Your task to perform on an android device: turn off priority inbox in the gmail app Image 0: 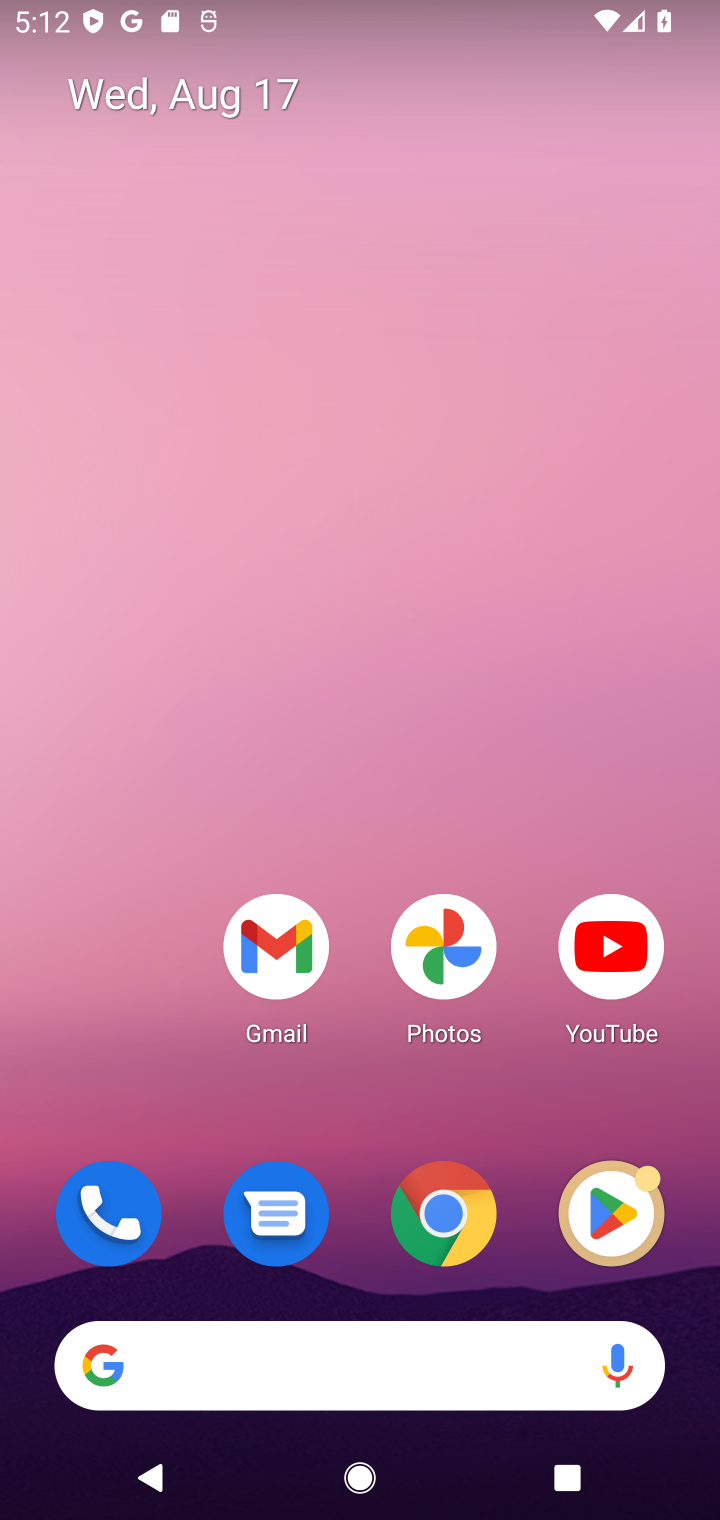
Step 0: click (271, 928)
Your task to perform on an android device: turn off priority inbox in the gmail app Image 1: 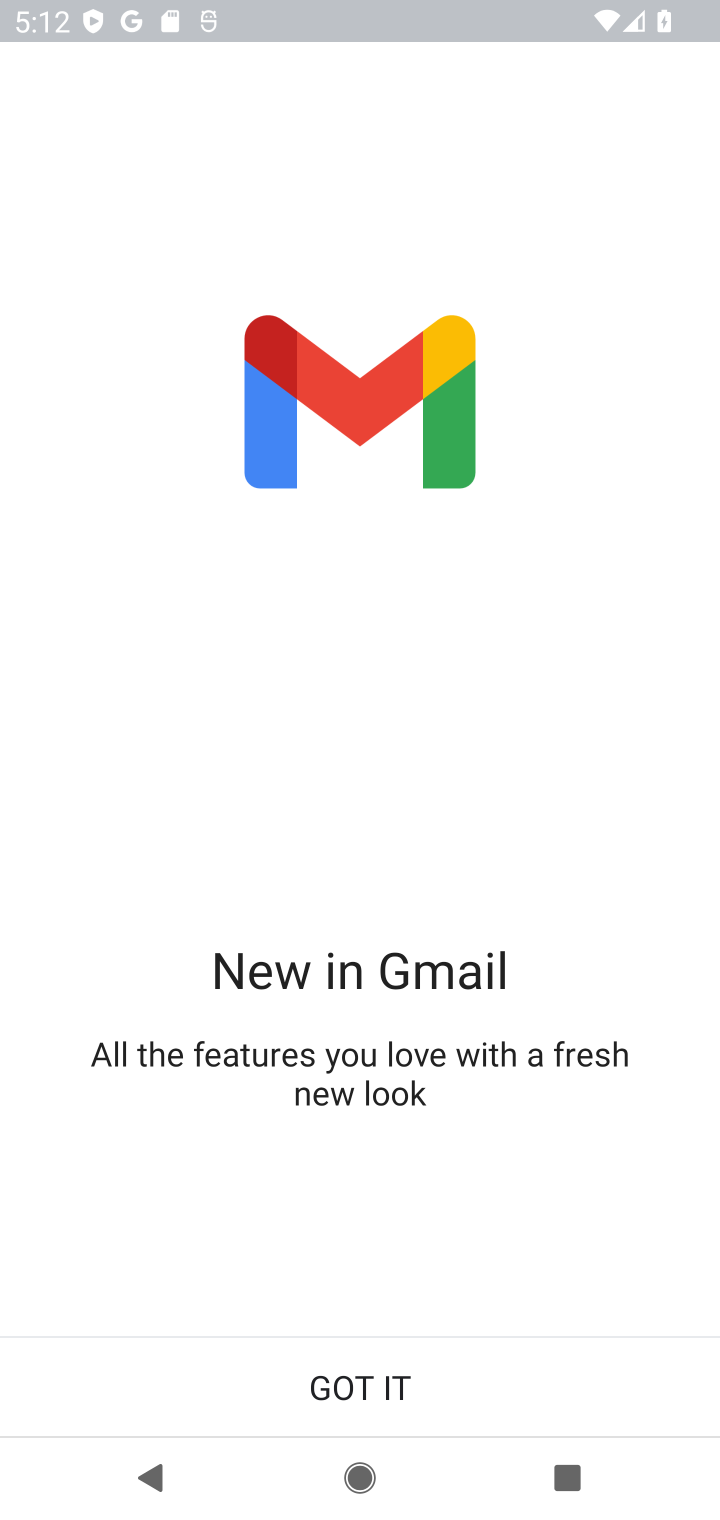
Step 1: click (403, 1389)
Your task to perform on an android device: turn off priority inbox in the gmail app Image 2: 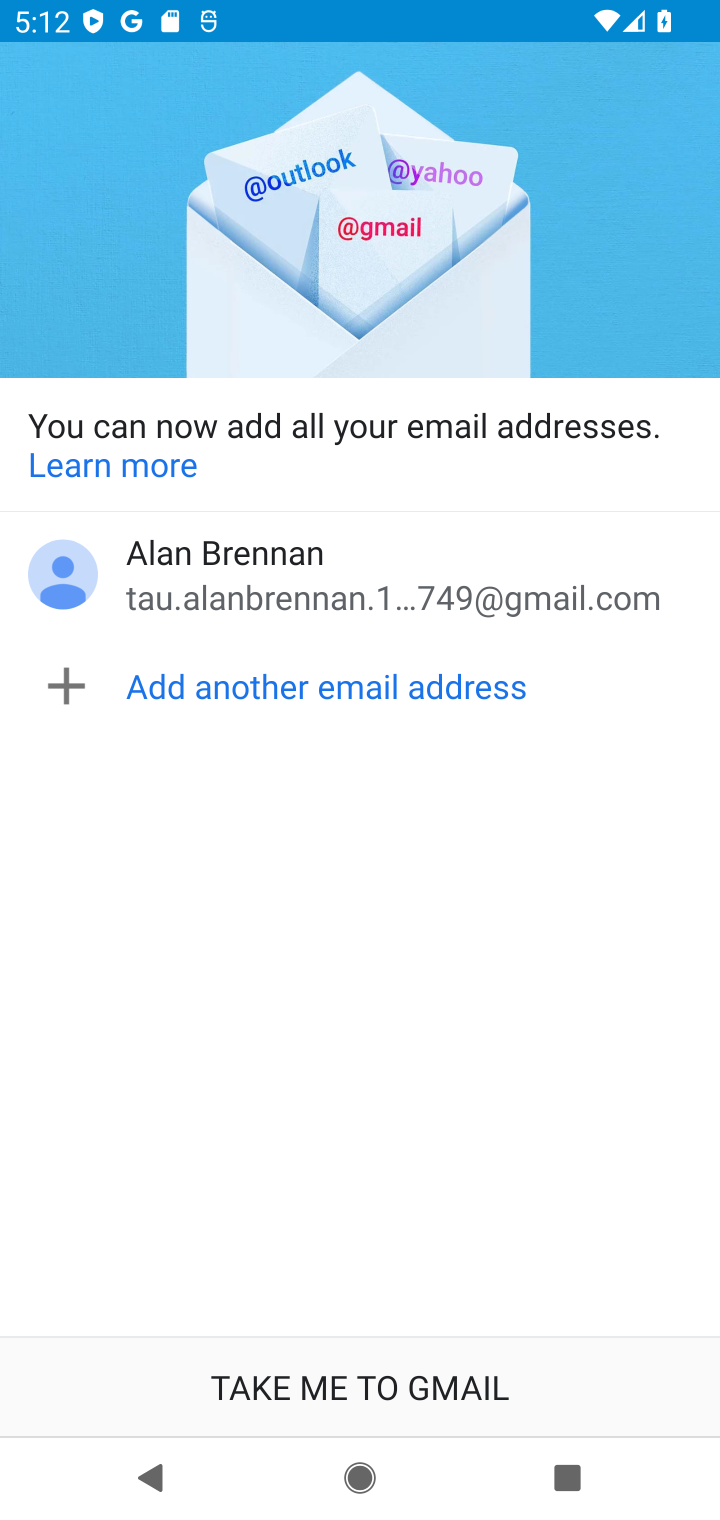
Step 2: click (403, 1389)
Your task to perform on an android device: turn off priority inbox in the gmail app Image 3: 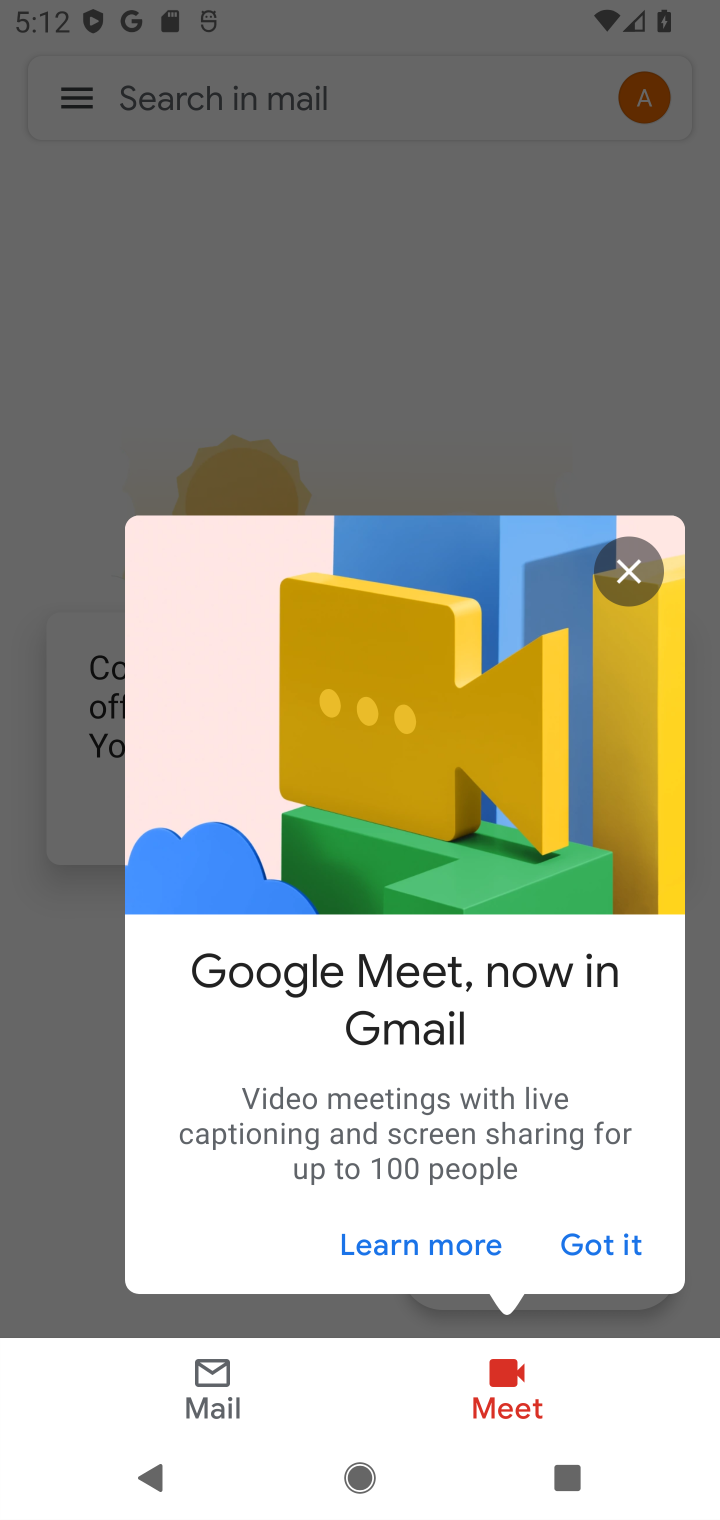
Step 3: click (630, 570)
Your task to perform on an android device: turn off priority inbox in the gmail app Image 4: 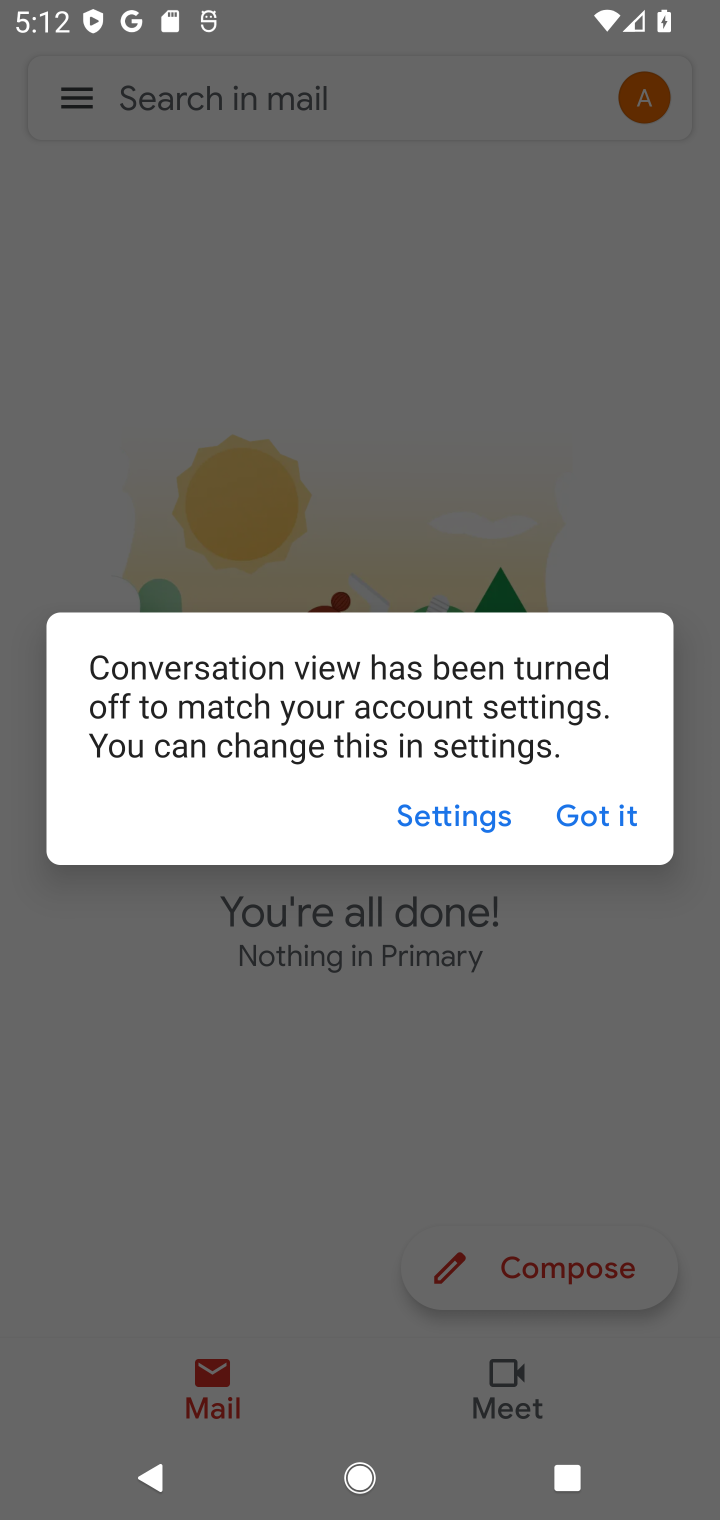
Step 4: click (599, 806)
Your task to perform on an android device: turn off priority inbox in the gmail app Image 5: 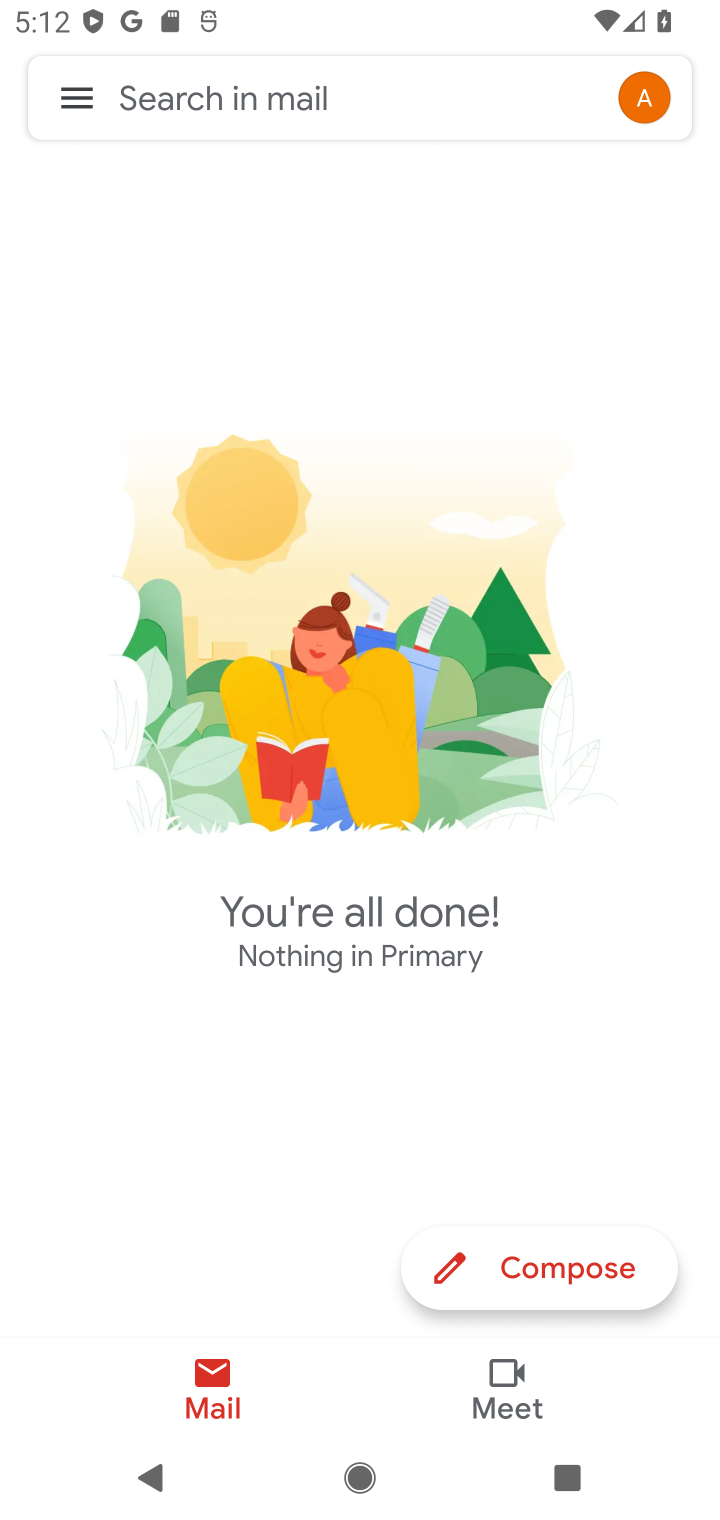
Step 5: click (76, 116)
Your task to perform on an android device: turn off priority inbox in the gmail app Image 6: 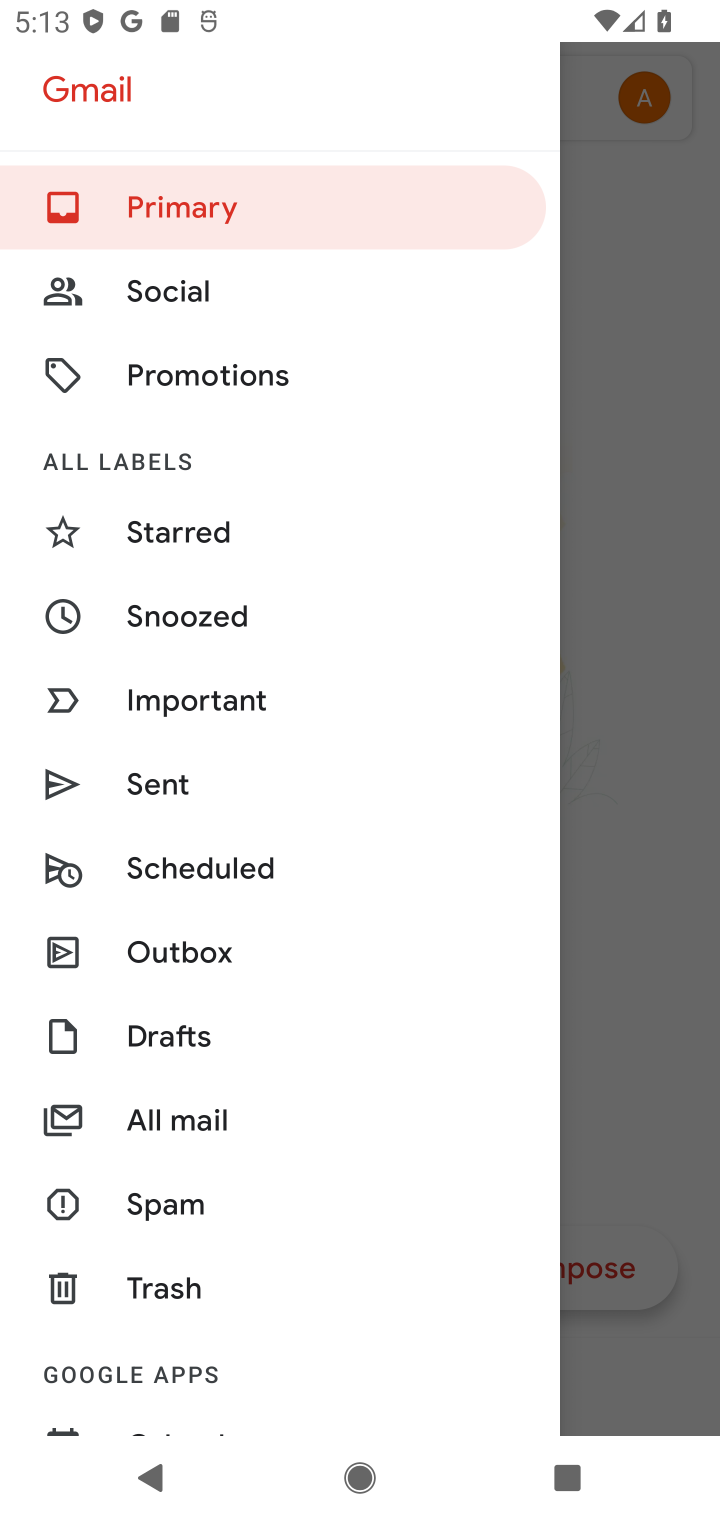
Step 6: drag from (237, 1371) to (274, 592)
Your task to perform on an android device: turn off priority inbox in the gmail app Image 7: 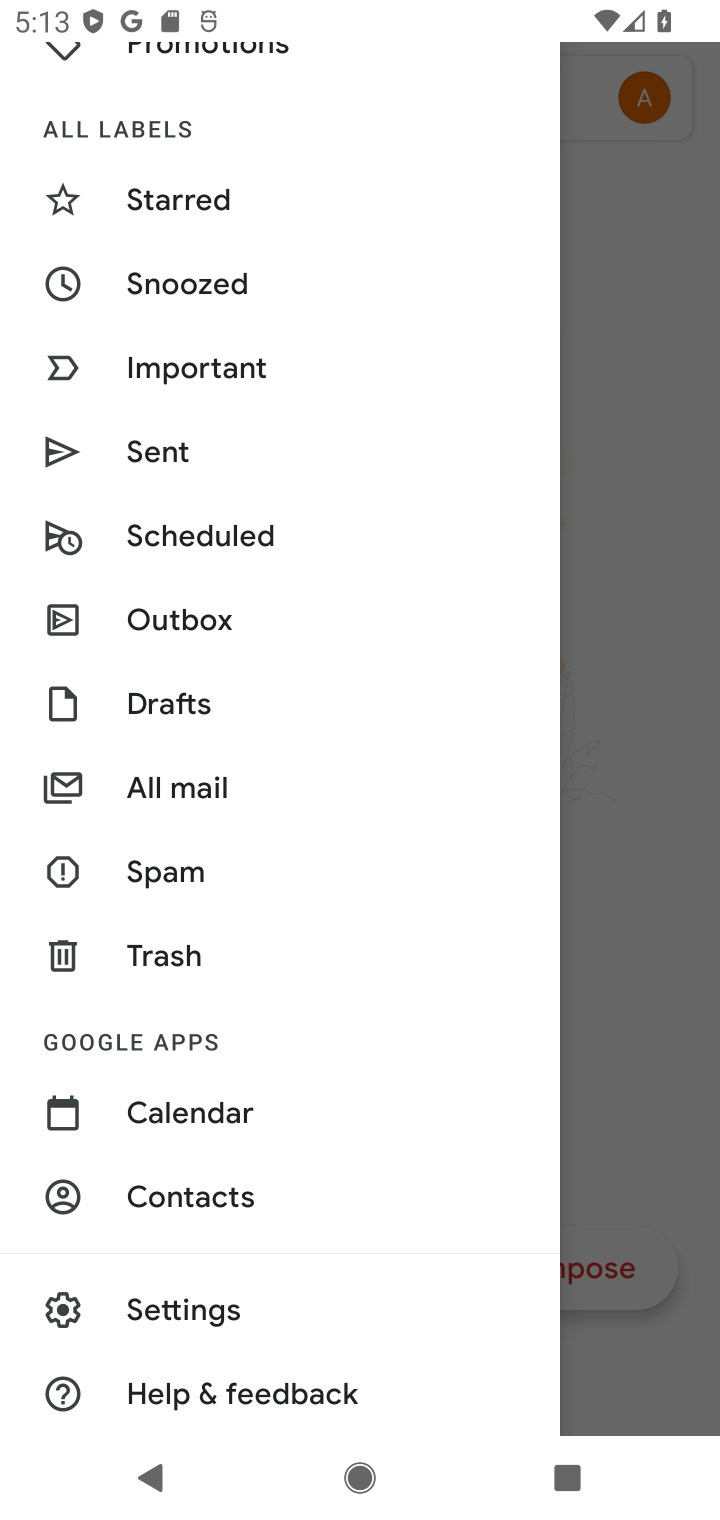
Step 7: click (251, 1306)
Your task to perform on an android device: turn off priority inbox in the gmail app Image 8: 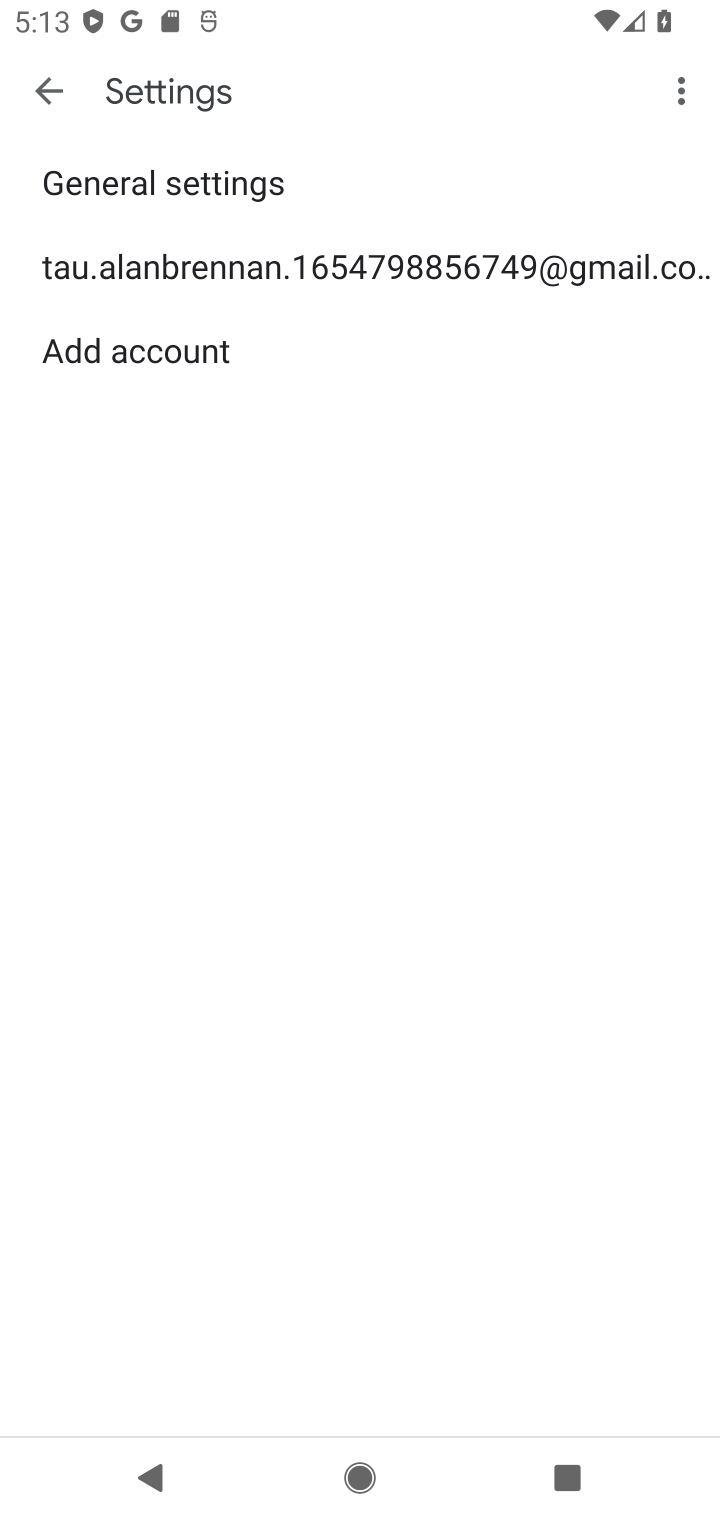
Step 8: click (413, 277)
Your task to perform on an android device: turn off priority inbox in the gmail app Image 9: 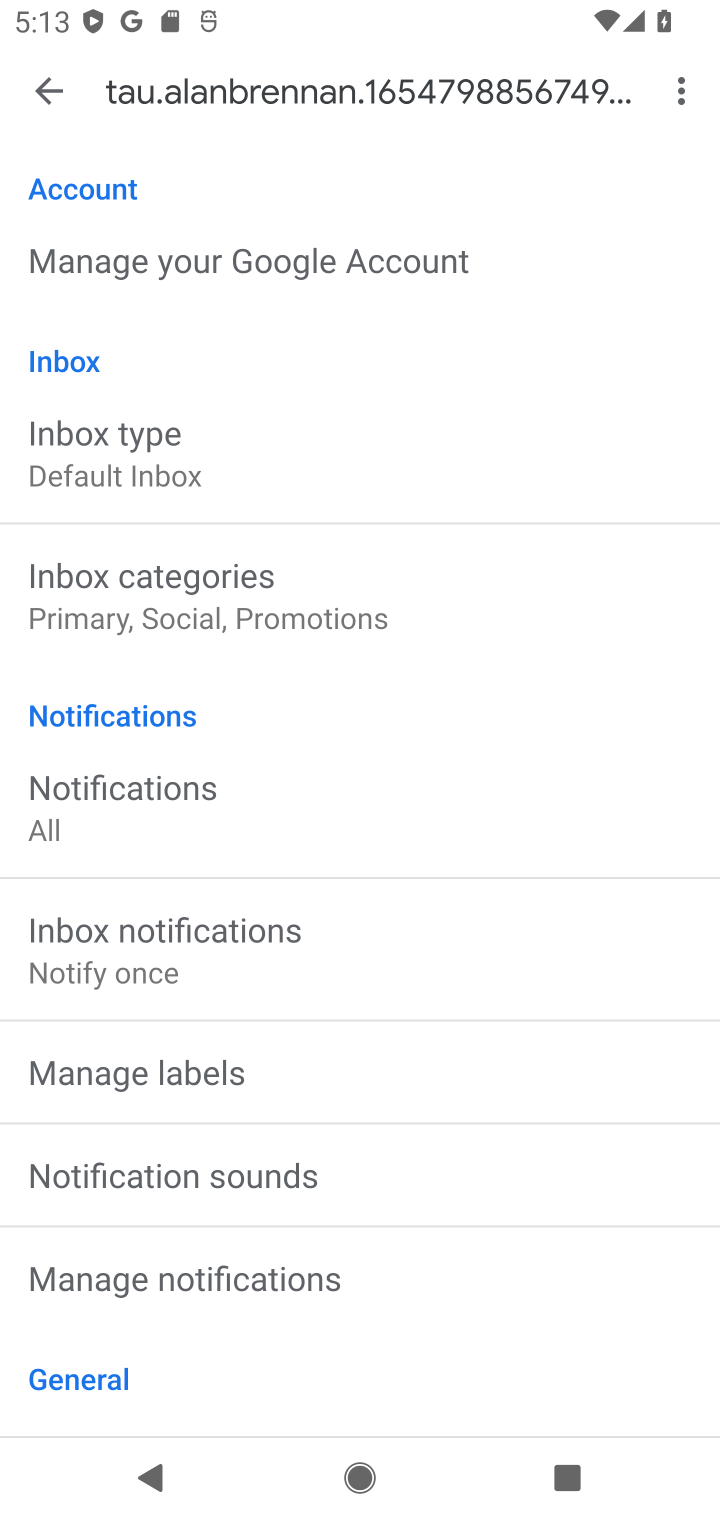
Step 9: click (216, 454)
Your task to perform on an android device: turn off priority inbox in the gmail app Image 10: 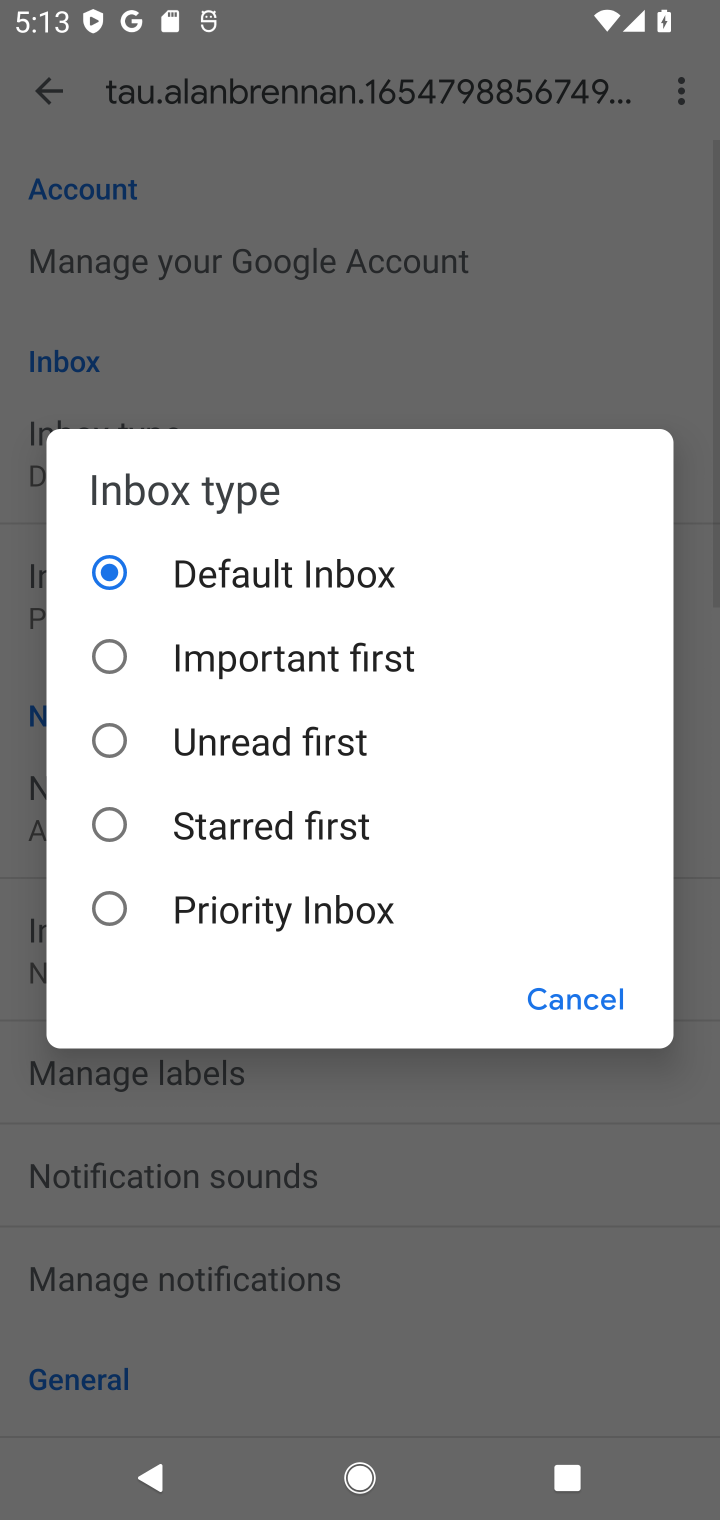
Step 10: task complete